Your task to perform on an android device: Open Yahoo.com Image 0: 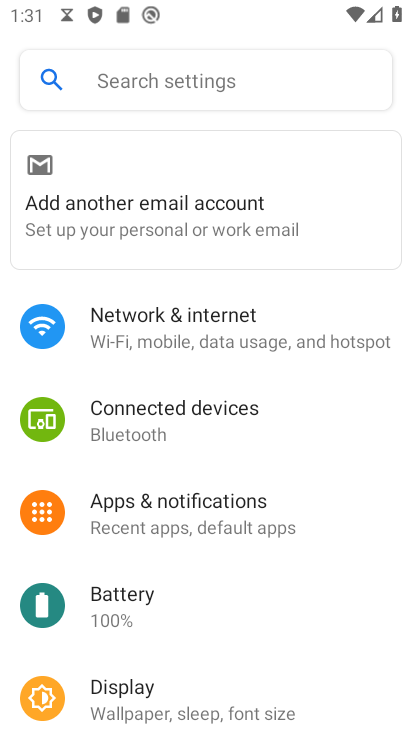
Step 0: press home button
Your task to perform on an android device: Open Yahoo.com Image 1: 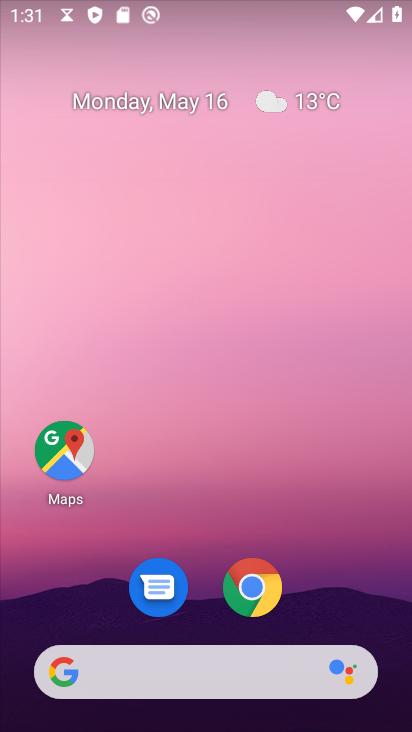
Step 1: click (244, 602)
Your task to perform on an android device: Open Yahoo.com Image 2: 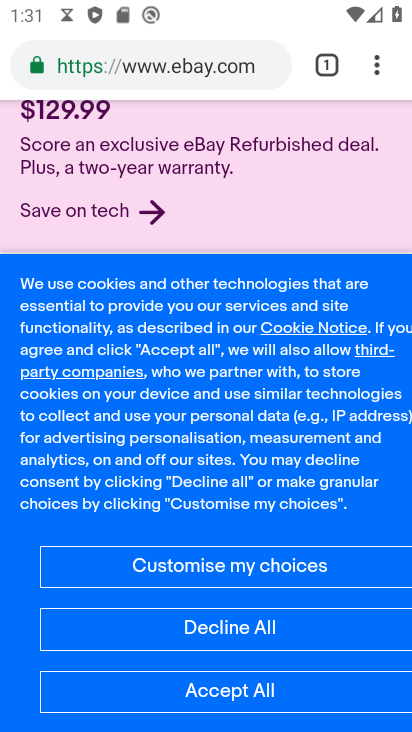
Step 2: drag from (166, 121) to (159, 538)
Your task to perform on an android device: Open Yahoo.com Image 3: 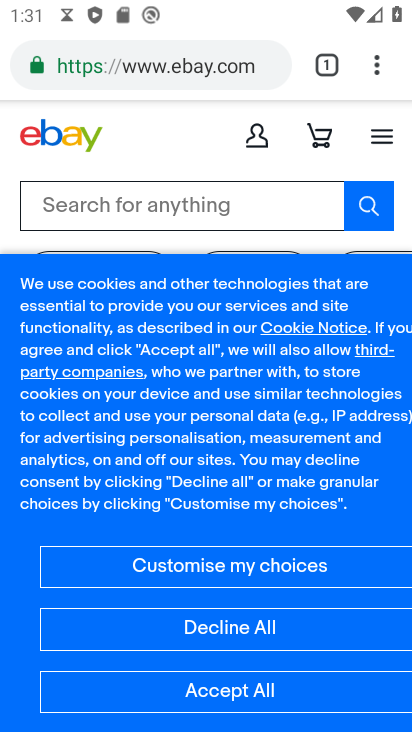
Step 3: click (322, 60)
Your task to perform on an android device: Open Yahoo.com Image 4: 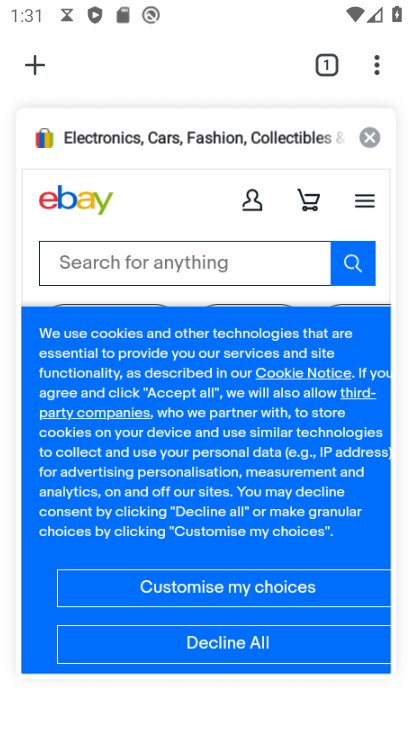
Step 4: click (367, 139)
Your task to perform on an android device: Open Yahoo.com Image 5: 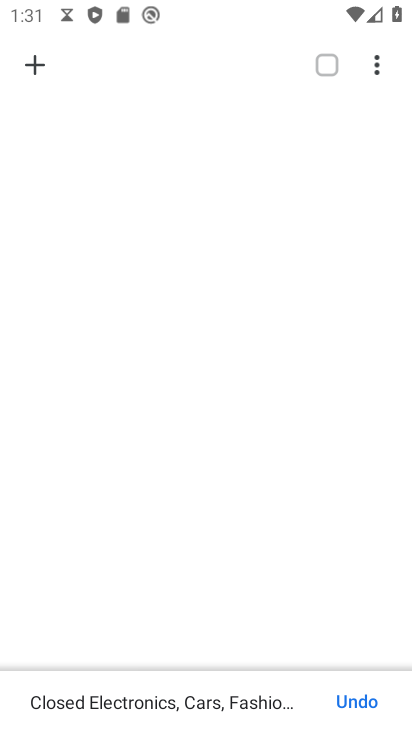
Step 5: click (26, 60)
Your task to perform on an android device: Open Yahoo.com Image 6: 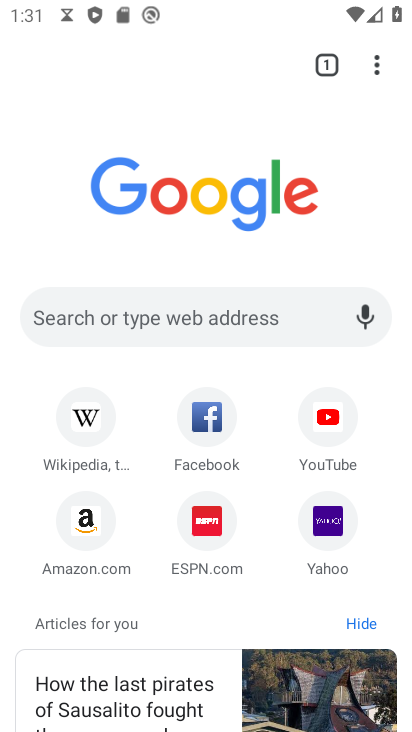
Step 6: click (343, 507)
Your task to perform on an android device: Open Yahoo.com Image 7: 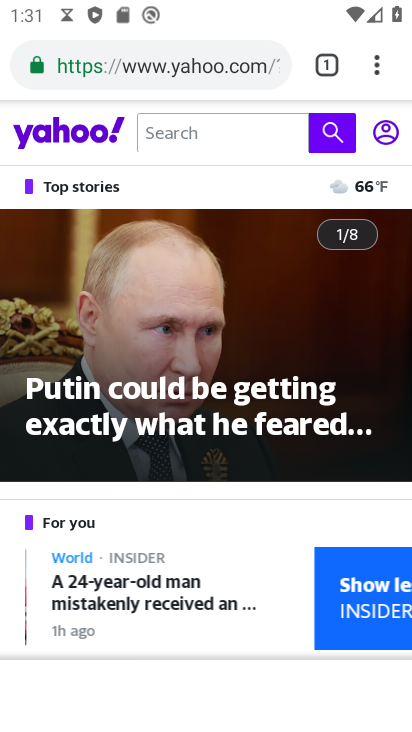
Step 7: task complete